Your task to perform on an android device: Go to internet settings Image 0: 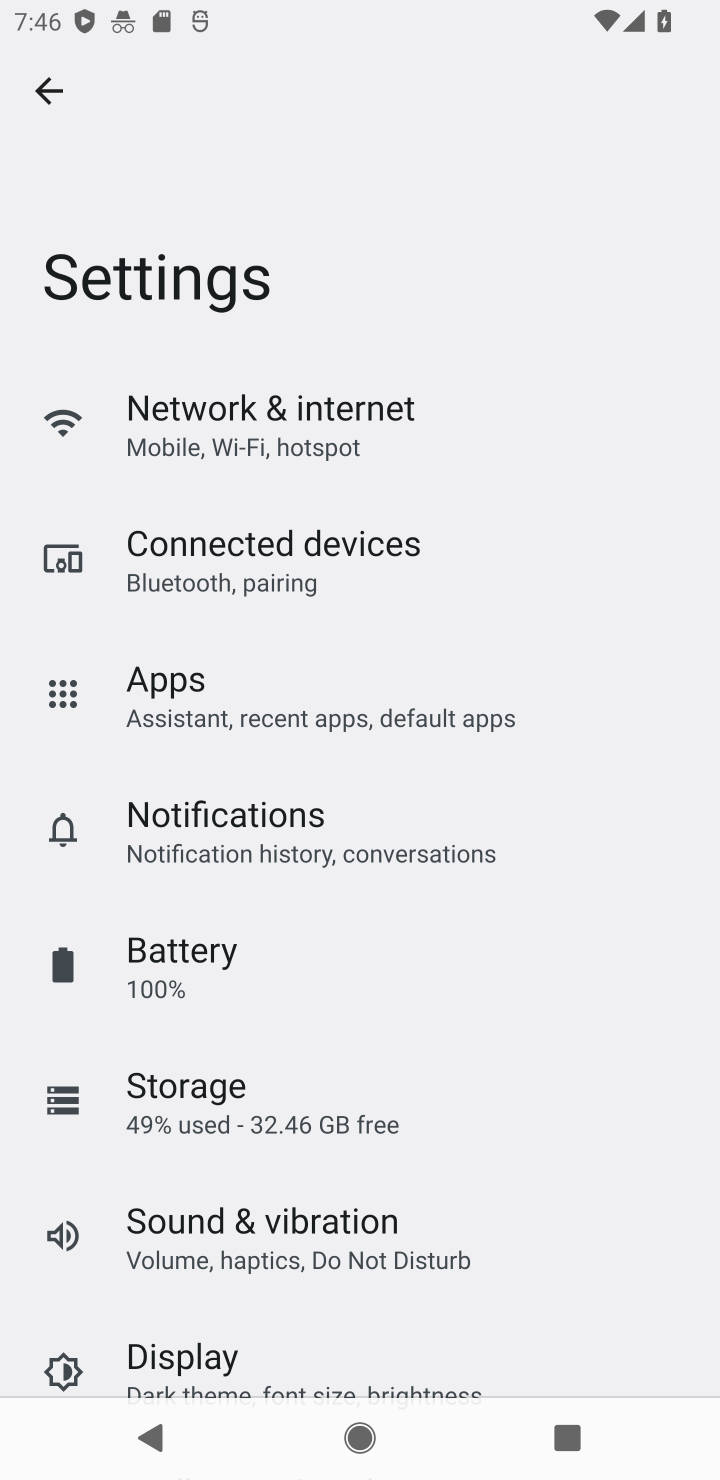
Step 0: click (182, 454)
Your task to perform on an android device: Go to internet settings Image 1: 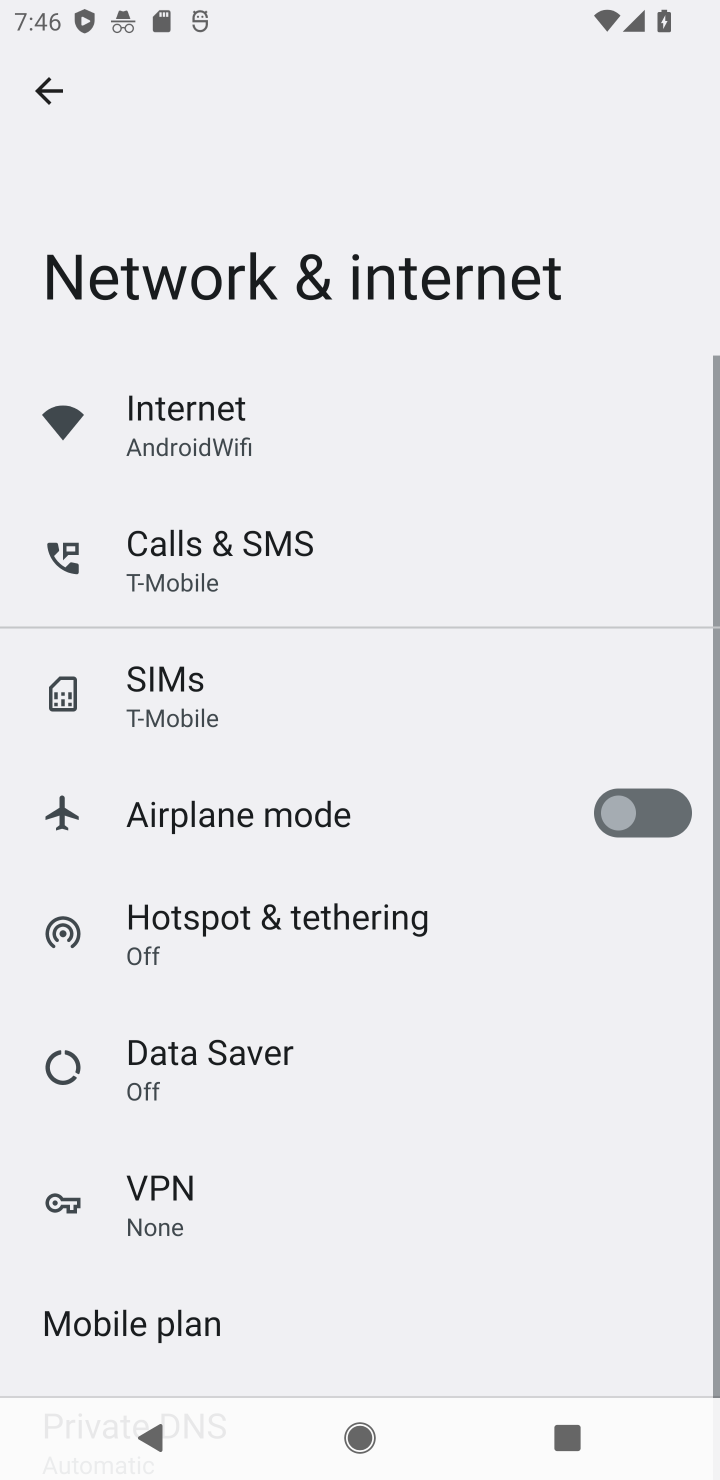
Step 1: click (180, 452)
Your task to perform on an android device: Go to internet settings Image 2: 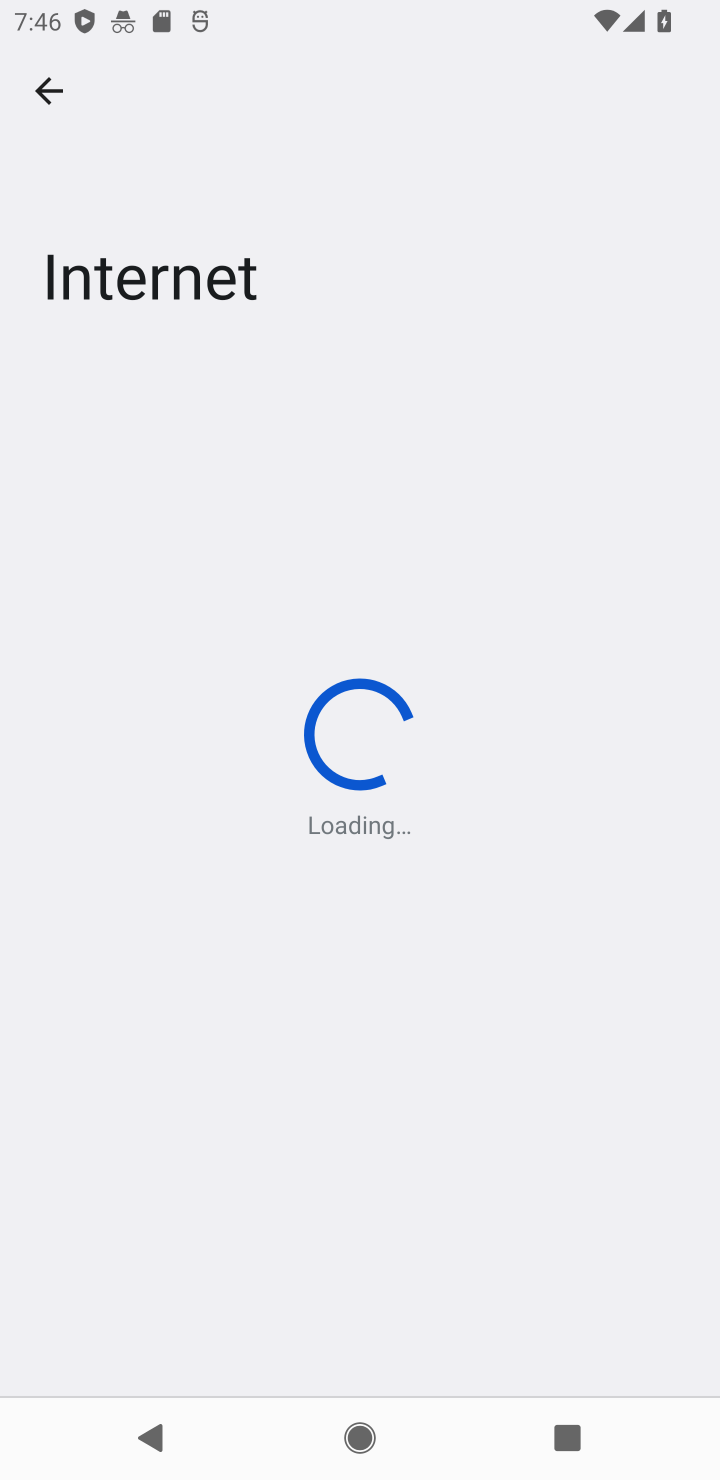
Step 2: task complete